Your task to perform on an android device: toggle airplane mode Image 0: 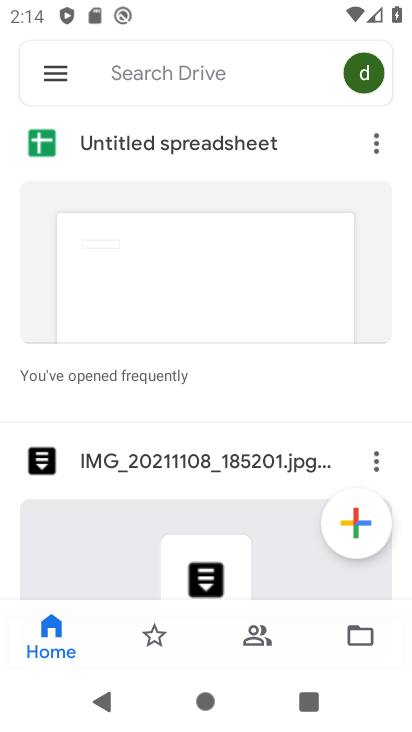
Step 0: press home button
Your task to perform on an android device: toggle airplane mode Image 1: 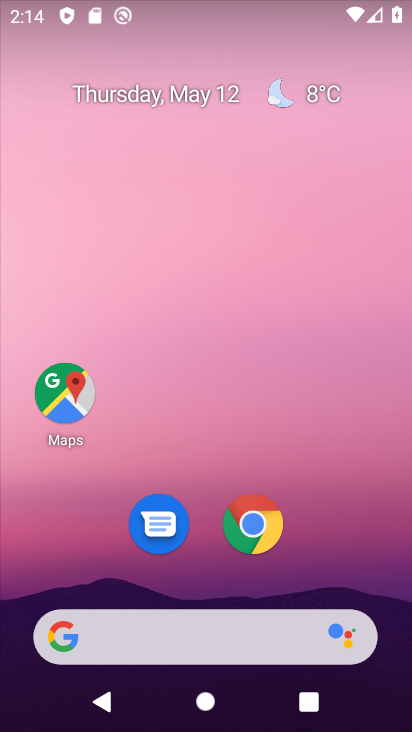
Step 1: drag from (204, 458) to (221, 24)
Your task to perform on an android device: toggle airplane mode Image 2: 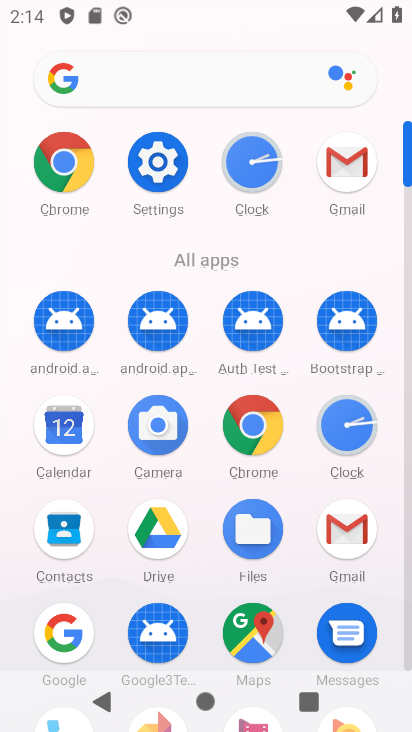
Step 2: click (163, 147)
Your task to perform on an android device: toggle airplane mode Image 3: 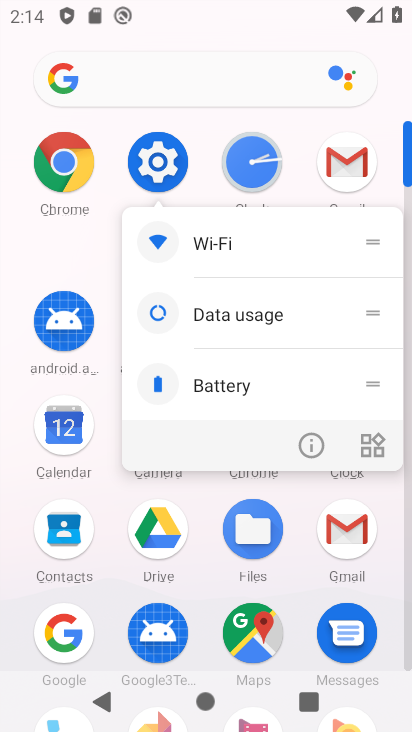
Step 3: click (163, 147)
Your task to perform on an android device: toggle airplane mode Image 4: 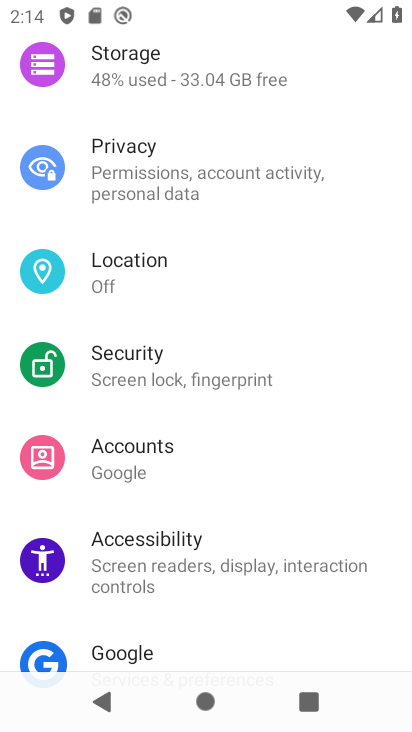
Step 4: drag from (213, 276) to (224, 578)
Your task to perform on an android device: toggle airplane mode Image 5: 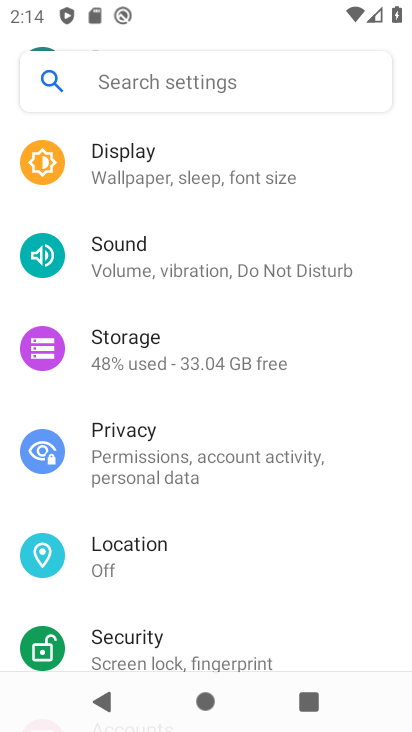
Step 5: drag from (223, 220) to (237, 632)
Your task to perform on an android device: toggle airplane mode Image 6: 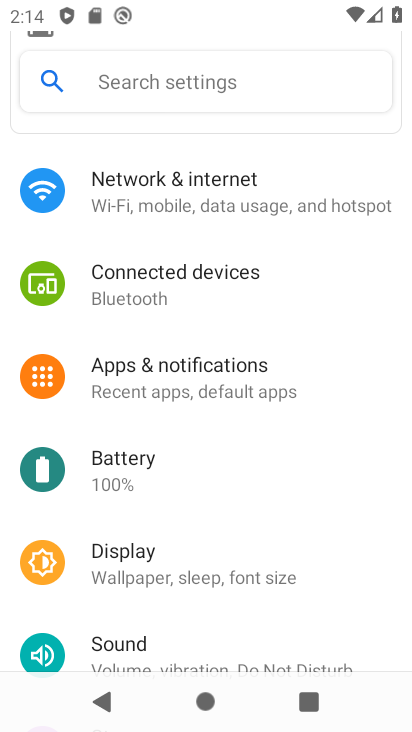
Step 6: click (247, 163)
Your task to perform on an android device: toggle airplane mode Image 7: 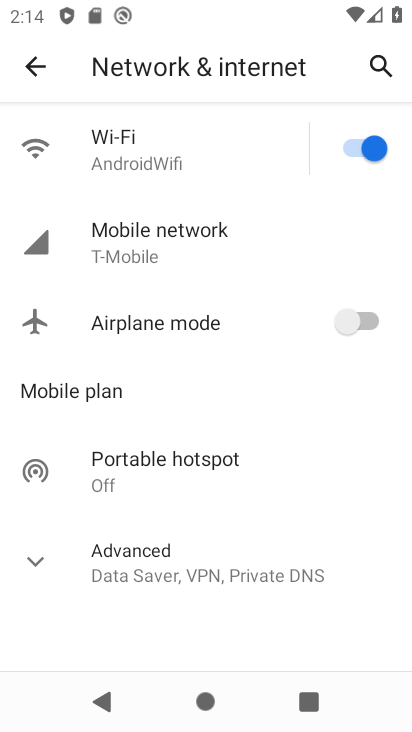
Step 7: click (358, 317)
Your task to perform on an android device: toggle airplane mode Image 8: 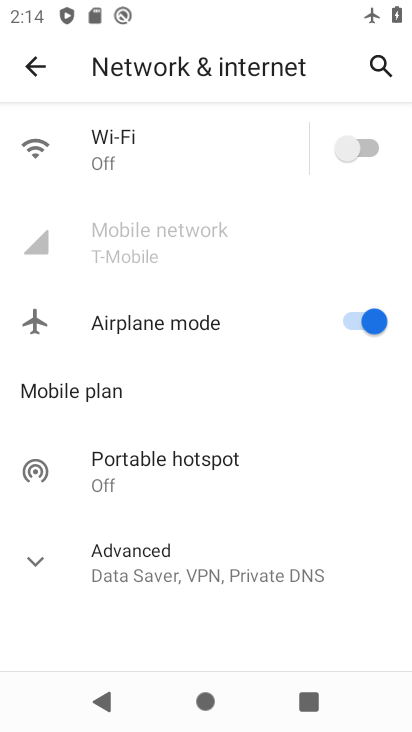
Step 8: task complete